Your task to perform on an android device: Go to eBay Image 0: 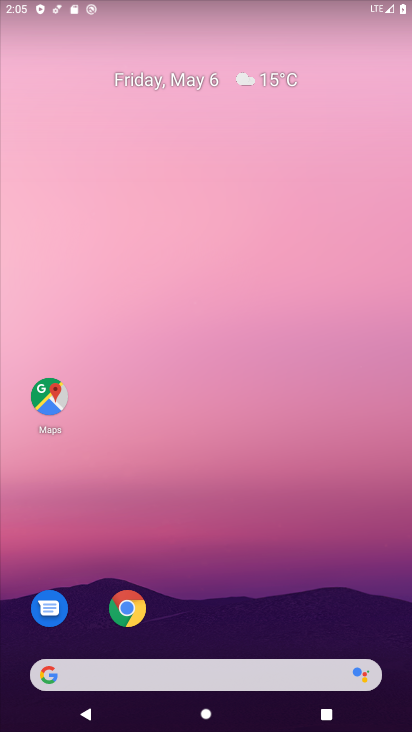
Step 0: click (129, 611)
Your task to perform on an android device: Go to eBay Image 1: 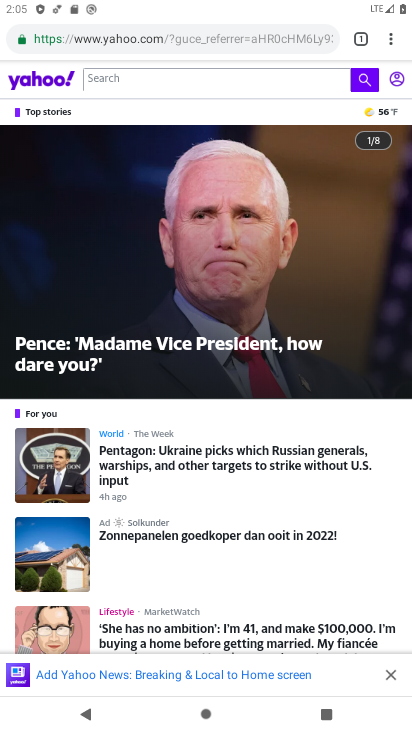
Step 1: click (318, 36)
Your task to perform on an android device: Go to eBay Image 2: 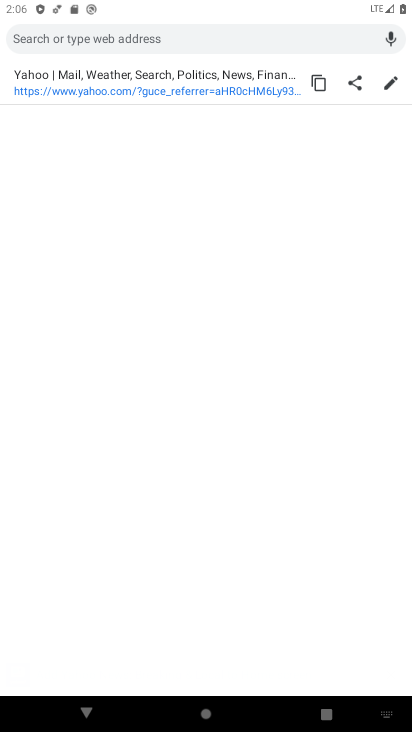
Step 2: type "eBay"
Your task to perform on an android device: Go to eBay Image 3: 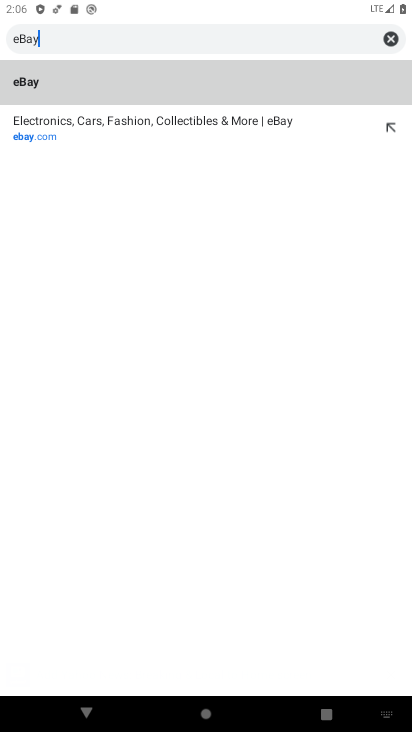
Step 3: type ""
Your task to perform on an android device: Go to eBay Image 4: 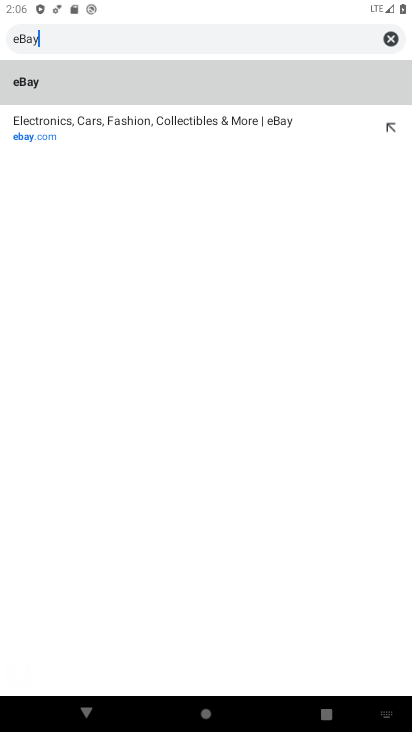
Step 4: click (25, 81)
Your task to perform on an android device: Go to eBay Image 5: 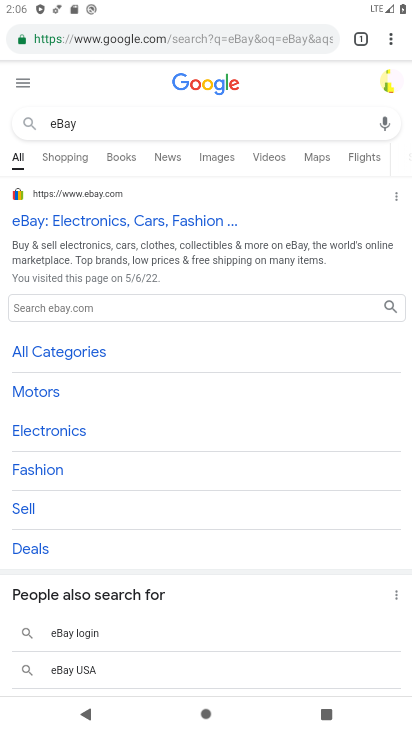
Step 5: click (52, 232)
Your task to perform on an android device: Go to eBay Image 6: 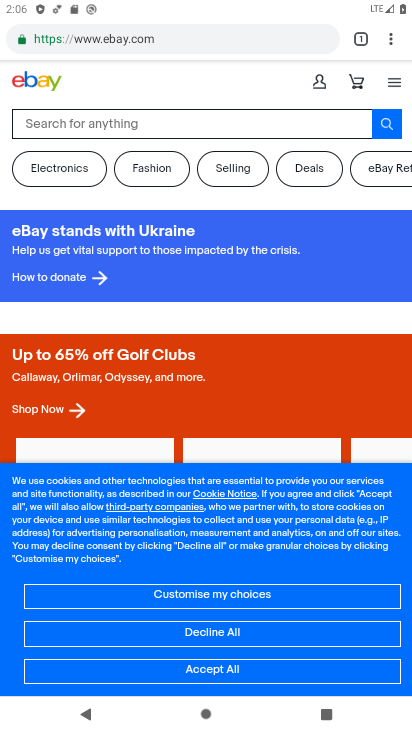
Step 6: task complete